Your task to perform on an android device: Open Yahoo.com Image 0: 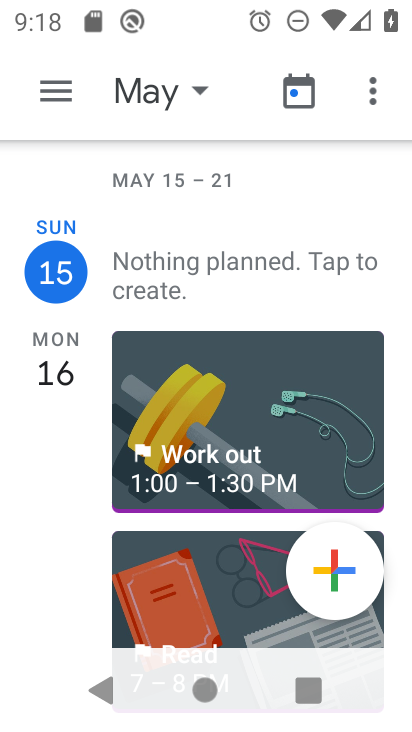
Step 0: press home button
Your task to perform on an android device: Open Yahoo.com Image 1: 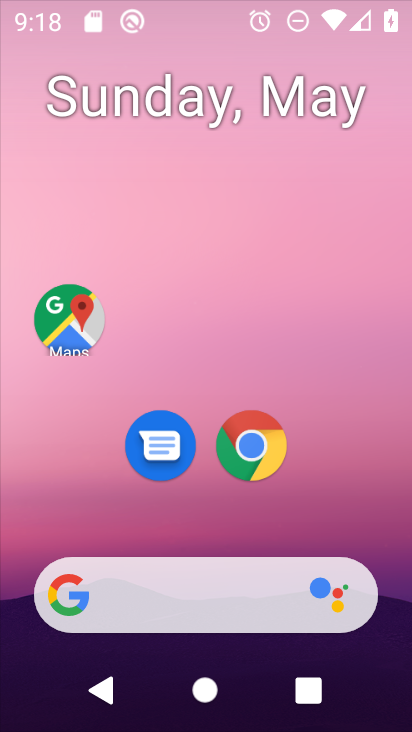
Step 1: drag from (187, 621) to (229, 202)
Your task to perform on an android device: Open Yahoo.com Image 2: 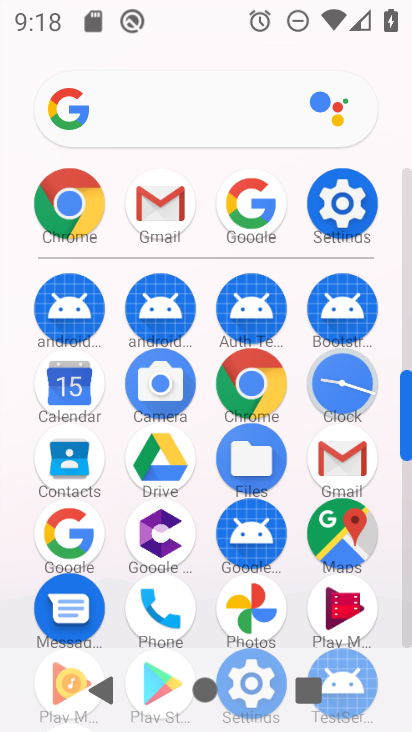
Step 2: click (74, 204)
Your task to perform on an android device: Open Yahoo.com Image 3: 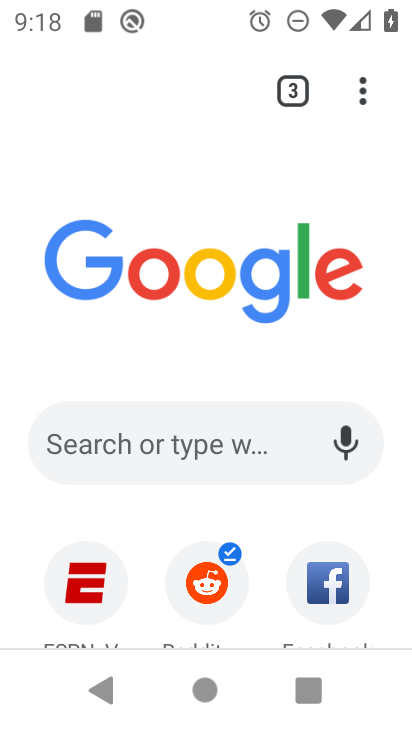
Step 3: click (220, 451)
Your task to perform on an android device: Open Yahoo.com Image 4: 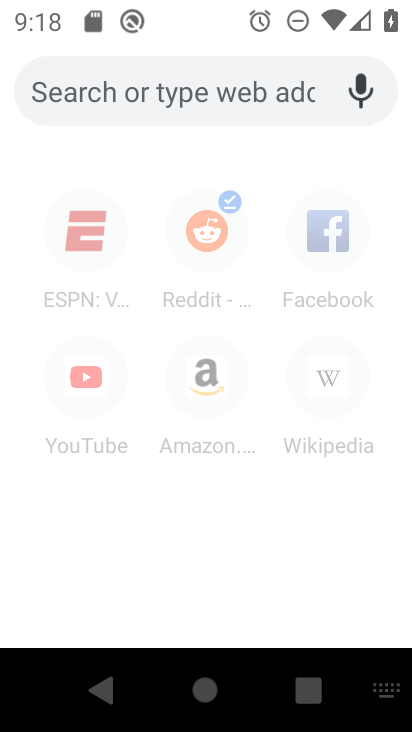
Step 4: type "yahoo"
Your task to perform on an android device: Open Yahoo.com Image 5: 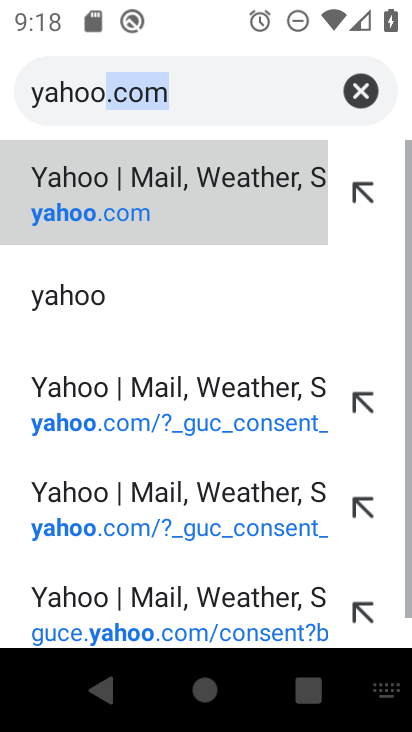
Step 5: click (175, 188)
Your task to perform on an android device: Open Yahoo.com Image 6: 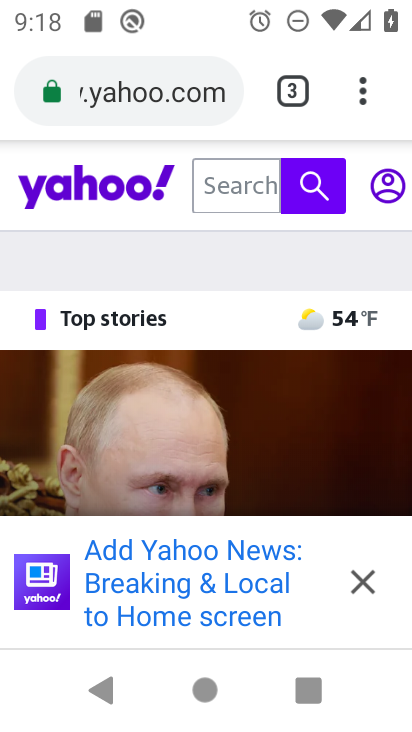
Step 6: task complete